Your task to perform on an android device: Search for pizza restaurants on Maps Image 0: 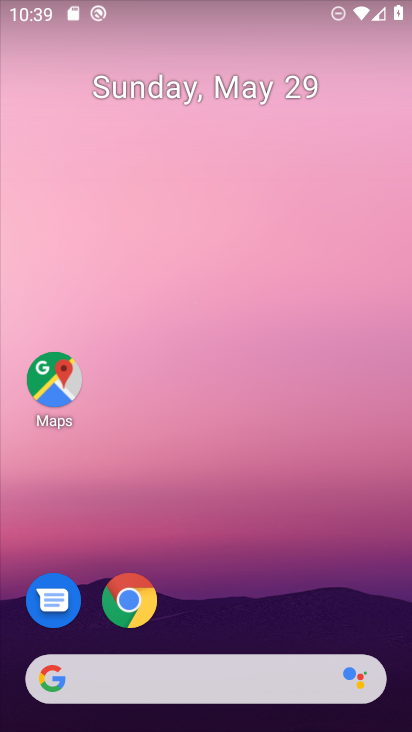
Step 0: drag from (222, 727) to (226, 43)
Your task to perform on an android device: Search for pizza restaurants on Maps Image 1: 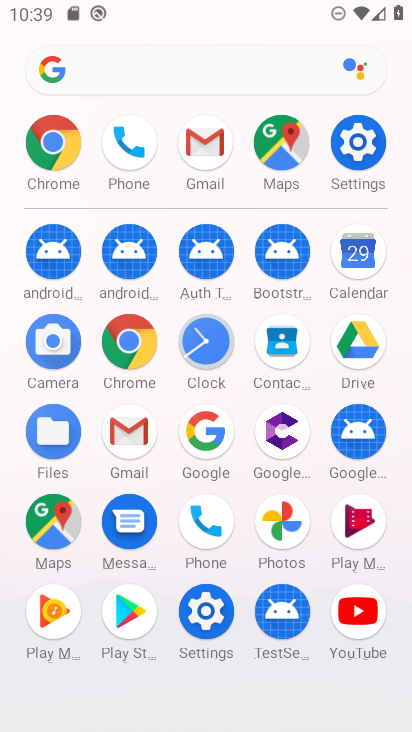
Step 1: click (39, 533)
Your task to perform on an android device: Search for pizza restaurants on Maps Image 2: 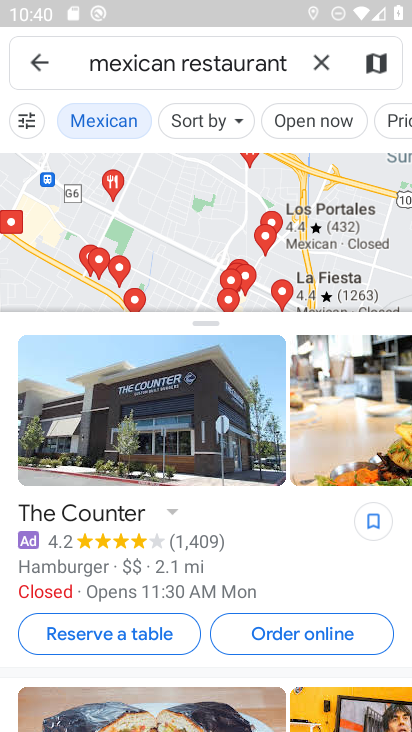
Step 2: click (325, 58)
Your task to perform on an android device: Search for pizza restaurants on Maps Image 3: 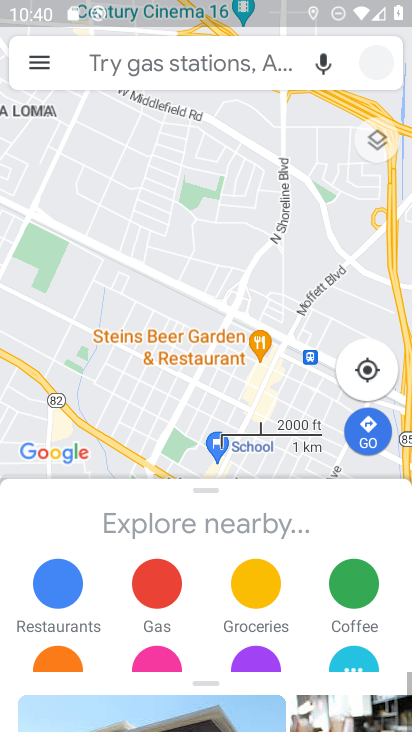
Step 3: click (220, 62)
Your task to perform on an android device: Search for pizza restaurants on Maps Image 4: 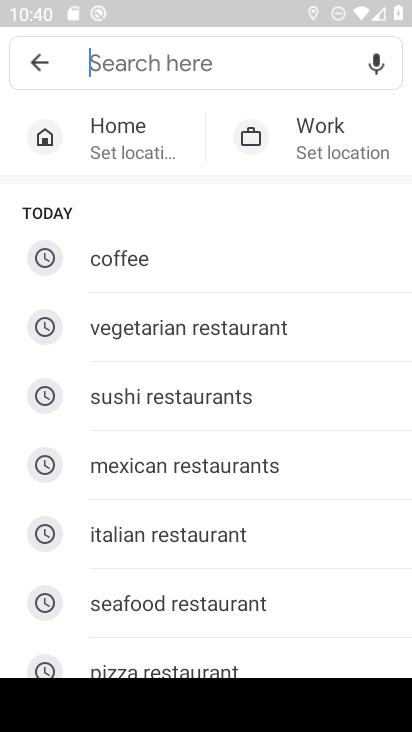
Step 4: type "pizza restaurants"
Your task to perform on an android device: Search for pizza restaurants on Maps Image 5: 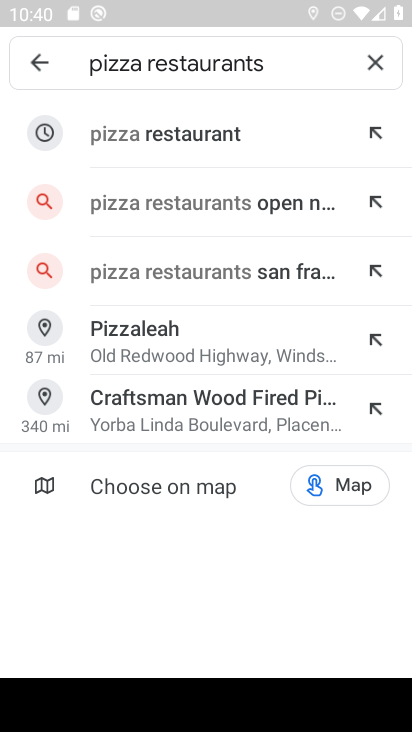
Step 5: click (222, 140)
Your task to perform on an android device: Search for pizza restaurants on Maps Image 6: 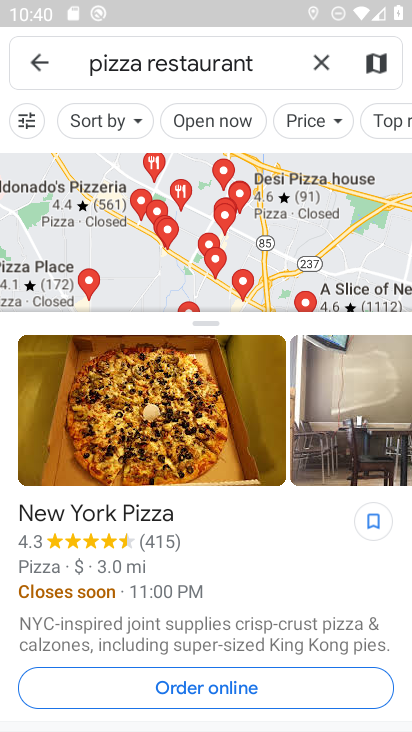
Step 6: task complete